Your task to perform on an android device: refresh tabs in the chrome app Image 0: 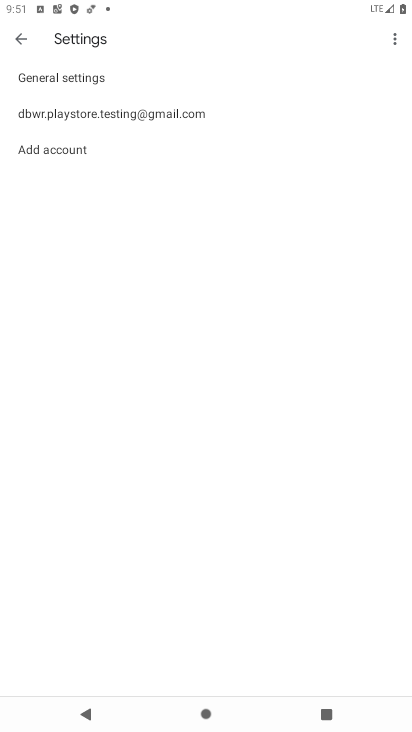
Step 0: press home button
Your task to perform on an android device: refresh tabs in the chrome app Image 1: 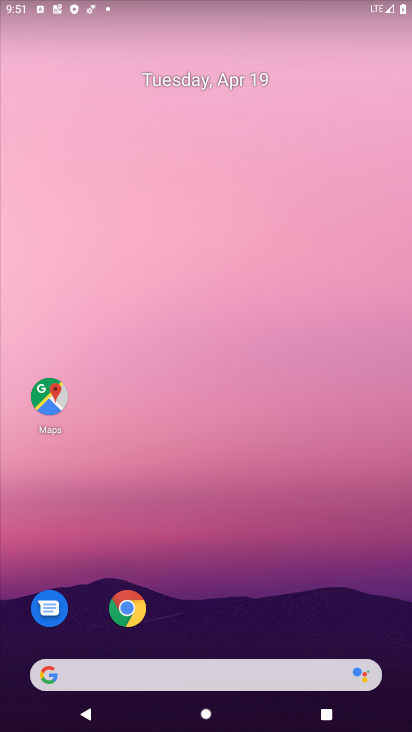
Step 1: click (129, 609)
Your task to perform on an android device: refresh tabs in the chrome app Image 2: 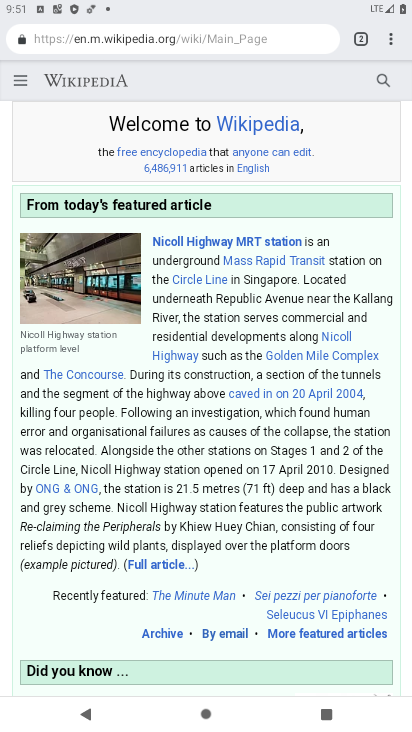
Step 2: click (388, 39)
Your task to perform on an android device: refresh tabs in the chrome app Image 3: 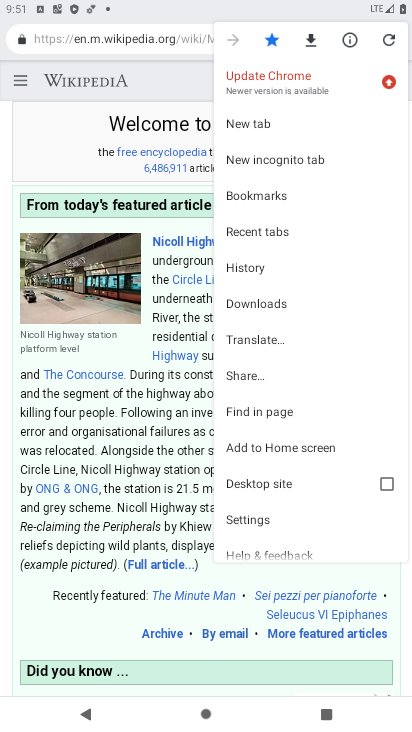
Step 3: click (386, 38)
Your task to perform on an android device: refresh tabs in the chrome app Image 4: 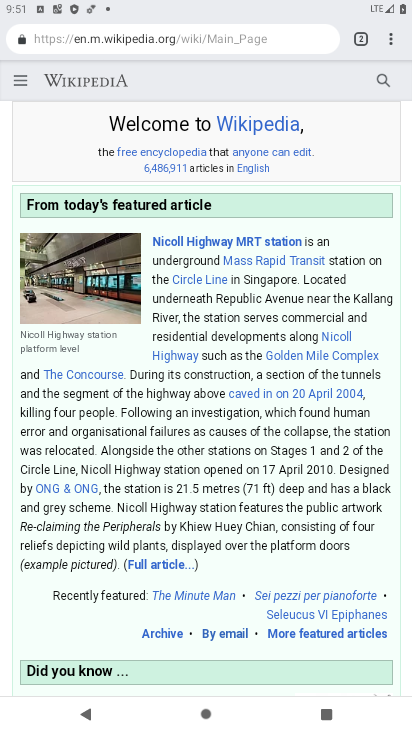
Step 4: task complete